Your task to perform on an android device: Go to calendar. Show me events next week Image 0: 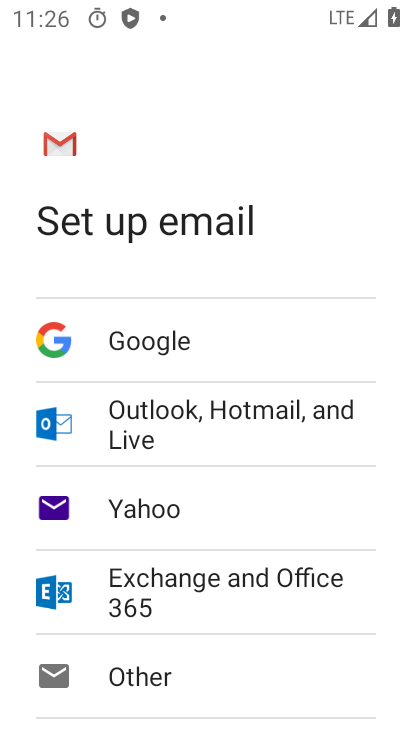
Step 0: press back button
Your task to perform on an android device: Go to calendar. Show me events next week Image 1: 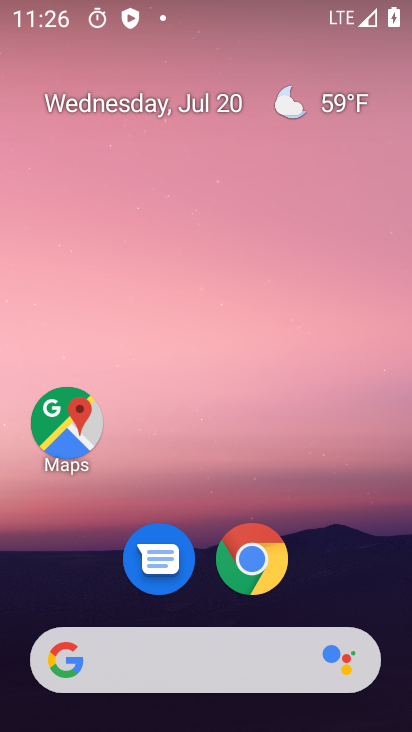
Step 1: drag from (55, 555) to (171, 33)
Your task to perform on an android device: Go to calendar. Show me events next week Image 2: 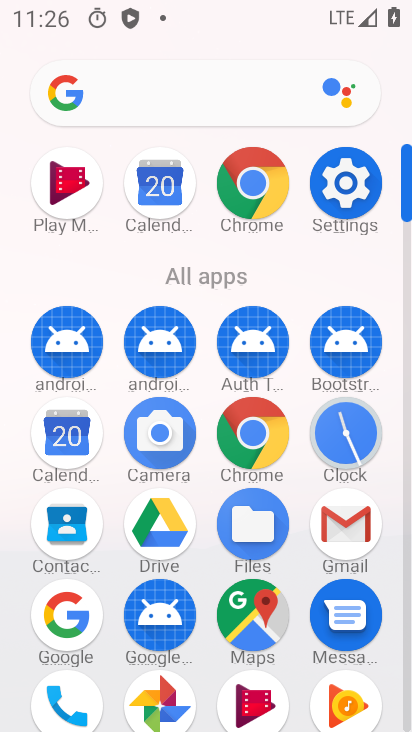
Step 2: click (60, 437)
Your task to perform on an android device: Go to calendar. Show me events next week Image 3: 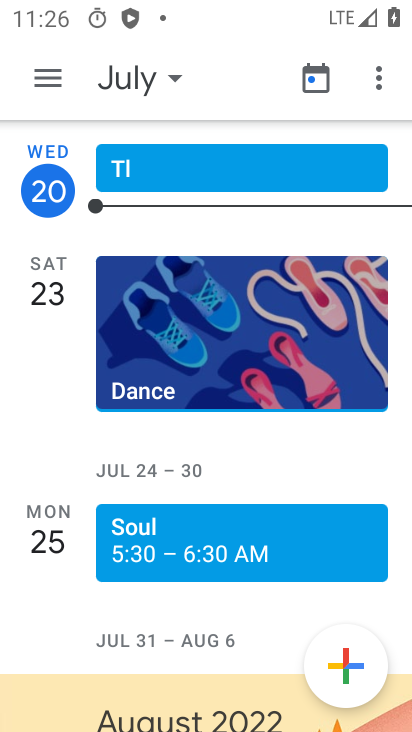
Step 3: click (136, 77)
Your task to perform on an android device: Go to calendar. Show me events next week Image 4: 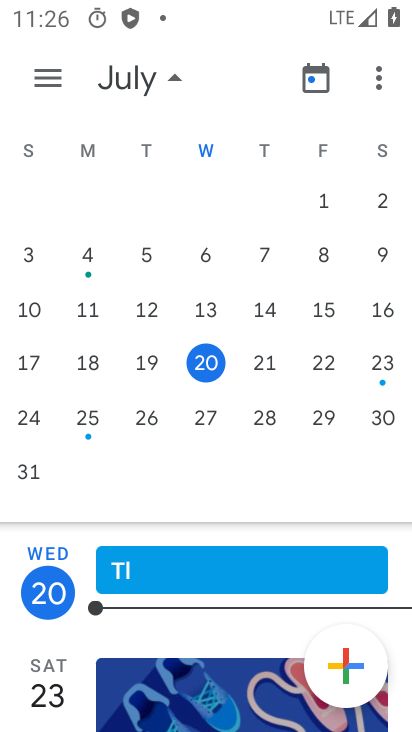
Step 4: drag from (362, 373) to (3, 349)
Your task to perform on an android device: Go to calendar. Show me events next week Image 5: 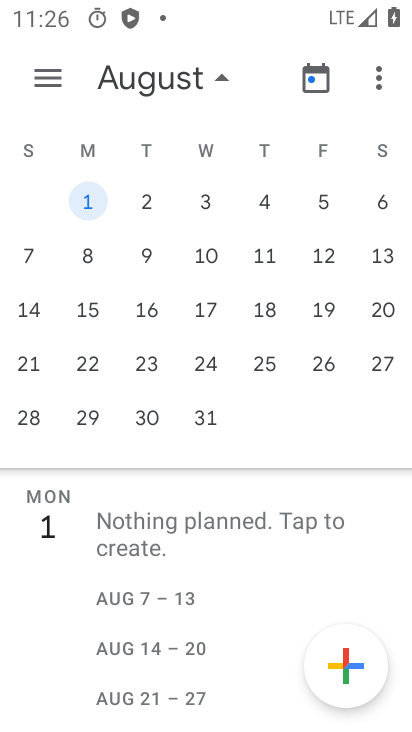
Step 5: drag from (39, 321) to (410, 290)
Your task to perform on an android device: Go to calendar. Show me events next week Image 6: 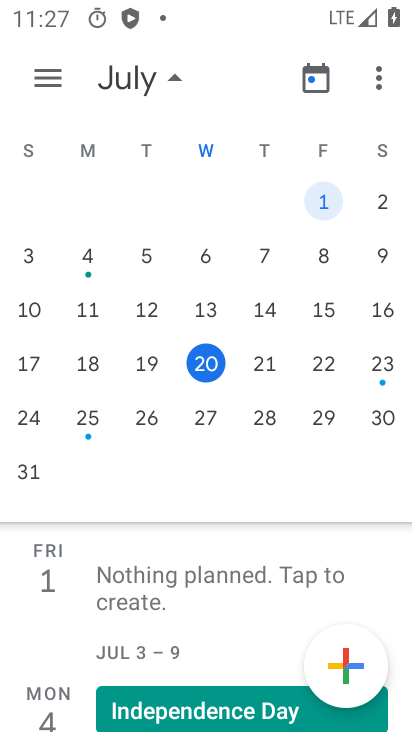
Step 6: click (87, 411)
Your task to perform on an android device: Go to calendar. Show me events next week Image 7: 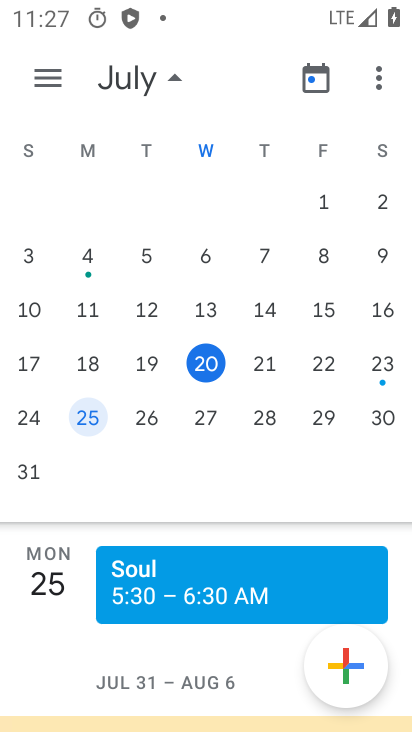
Step 7: task complete